Your task to perform on an android device: Set an alarm for 8pm Image 0: 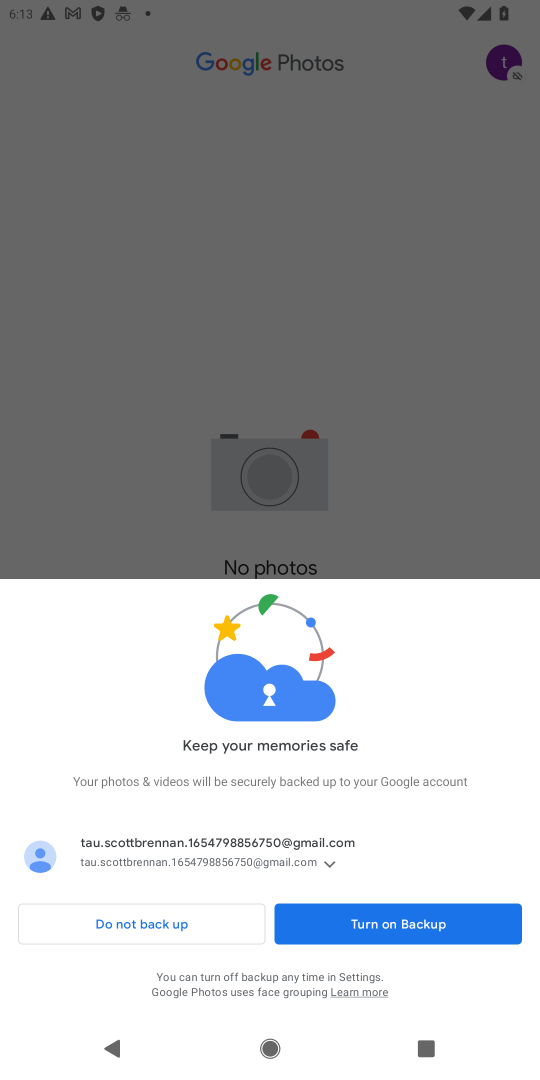
Step 0: press home button
Your task to perform on an android device: Set an alarm for 8pm Image 1: 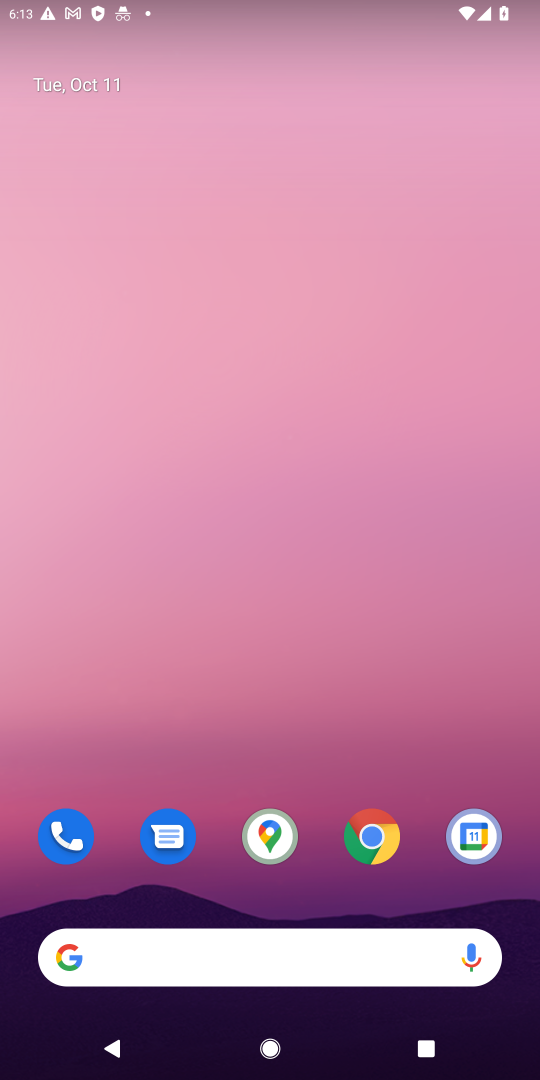
Step 1: drag from (424, 896) to (392, 116)
Your task to perform on an android device: Set an alarm for 8pm Image 2: 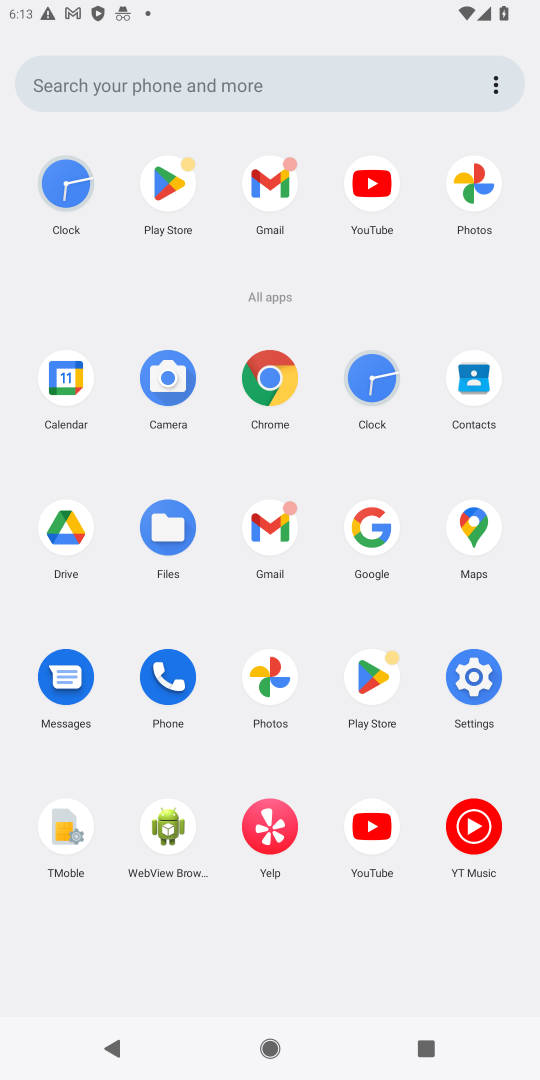
Step 2: click (370, 377)
Your task to perform on an android device: Set an alarm for 8pm Image 3: 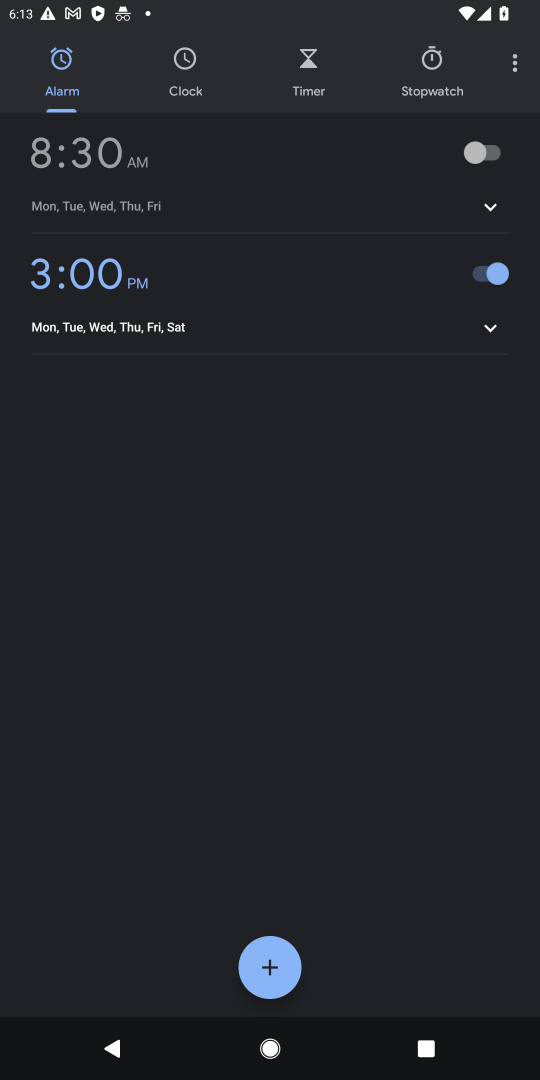
Step 3: click (68, 167)
Your task to perform on an android device: Set an alarm for 8pm Image 4: 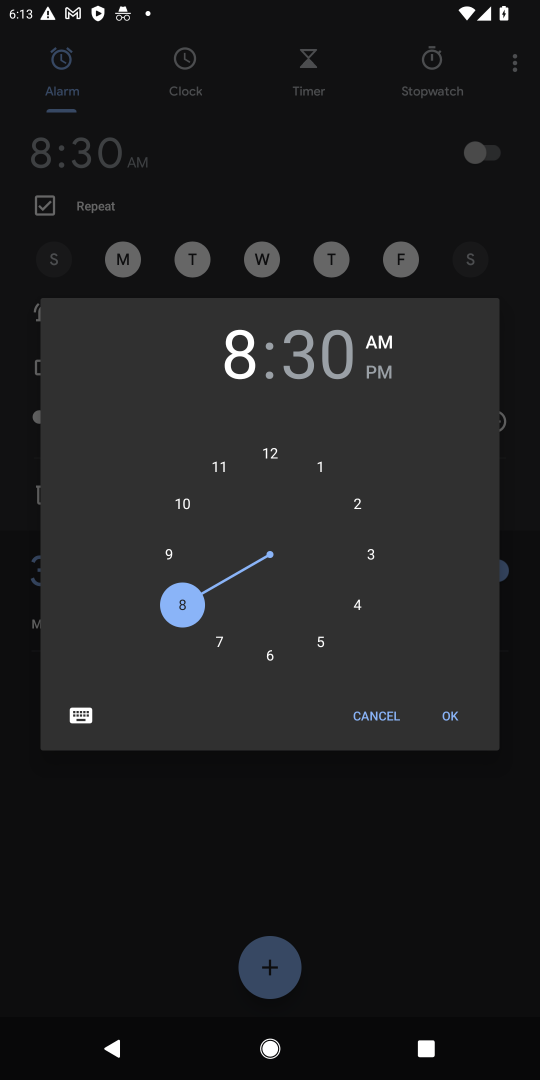
Step 4: click (183, 601)
Your task to perform on an android device: Set an alarm for 8pm Image 5: 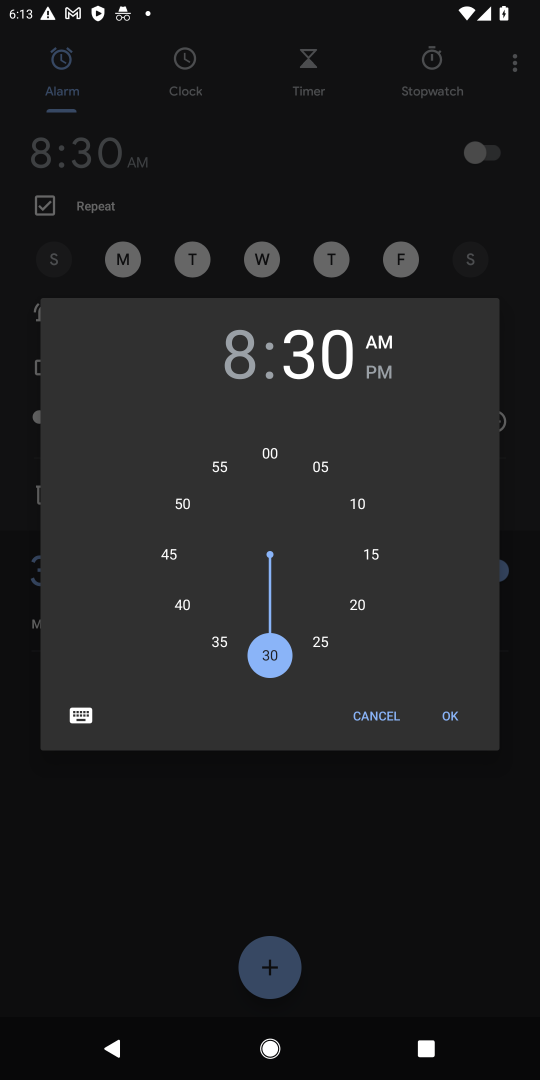
Step 5: click (272, 453)
Your task to perform on an android device: Set an alarm for 8pm Image 6: 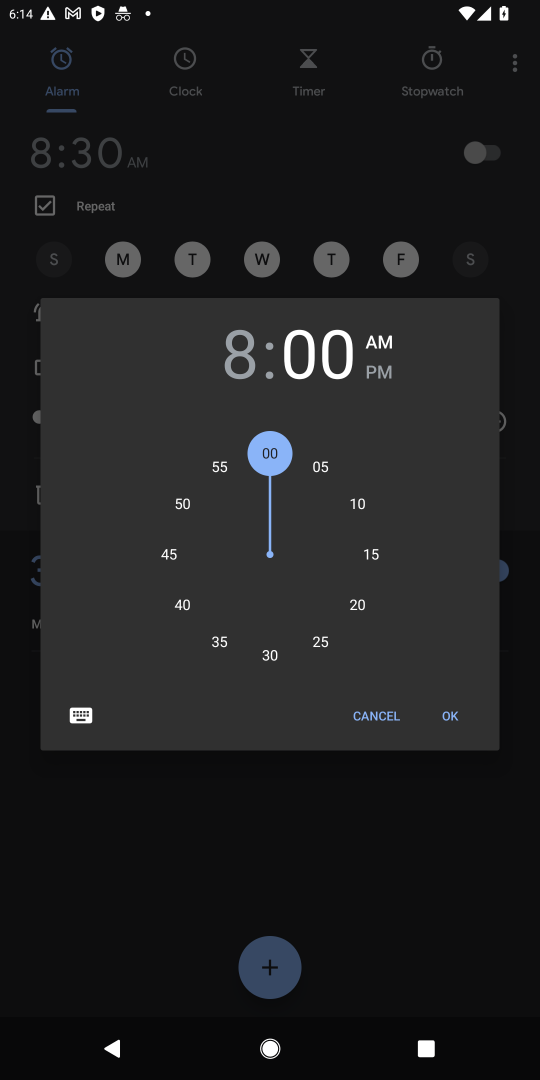
Step 6: click (380, 372)
Your task to perform on an android device: Set an alarm for 8pm Image 7: 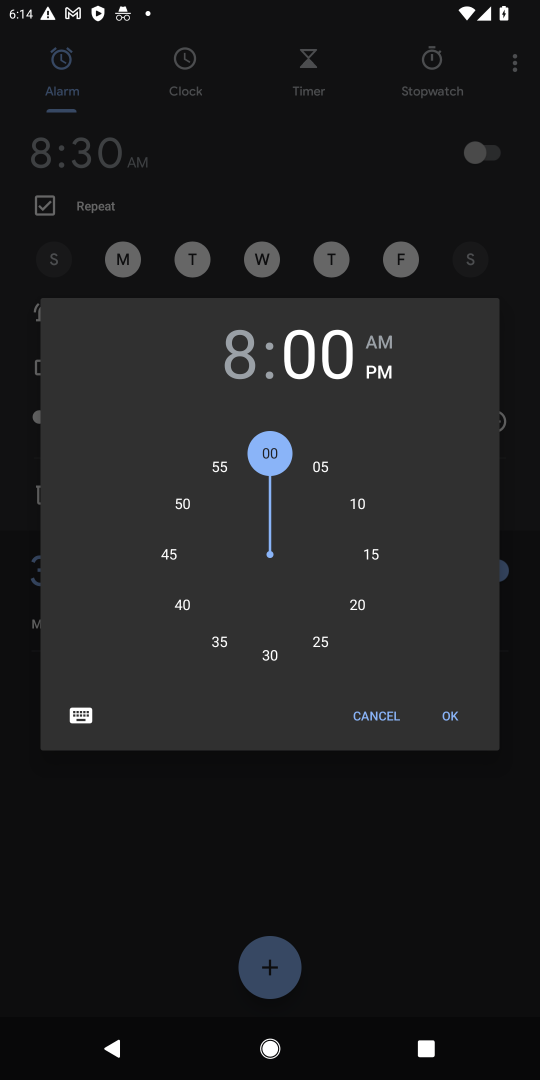
Step 7: click (455, 714)
Your task to perform on an android device: Set an alarm for 8pm Image 8: 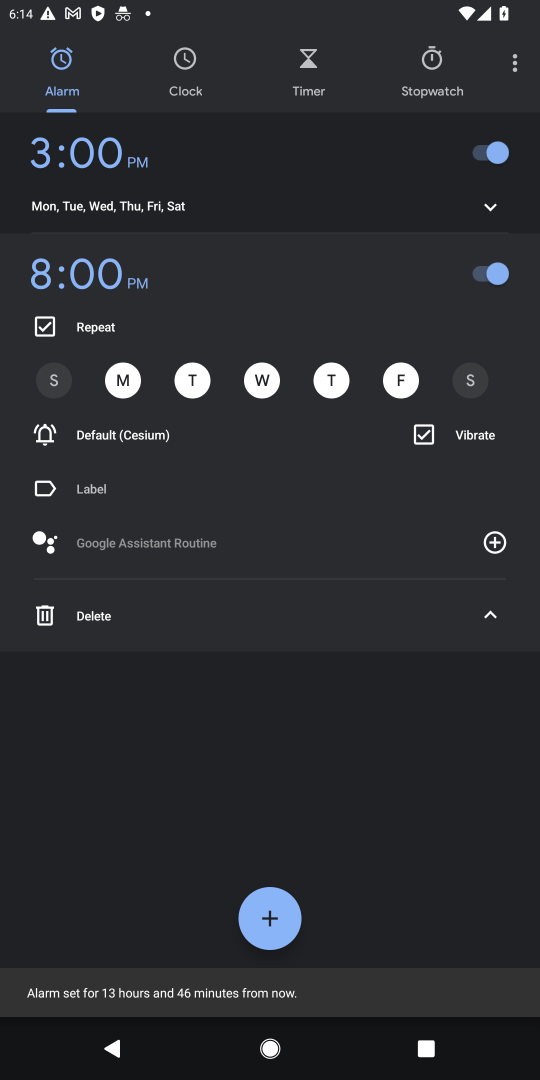
Step 8: click (464, 379)
Your task to perform on an android device: Set an alarm for 8pm Image 9: 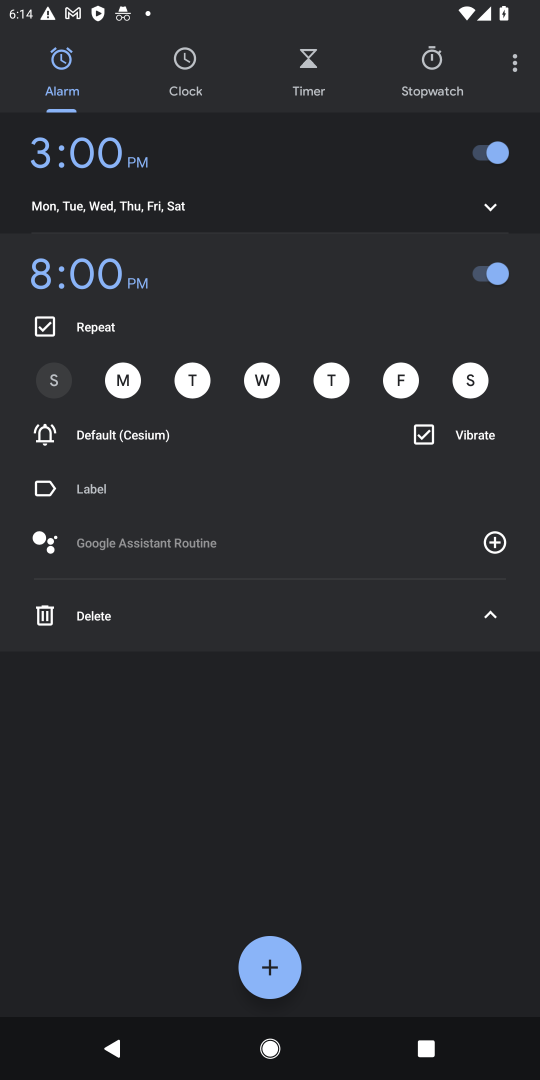
Step 9: click (489, 610)
Your task to perform on an android device: Set an alarm for 8pm Image 10: 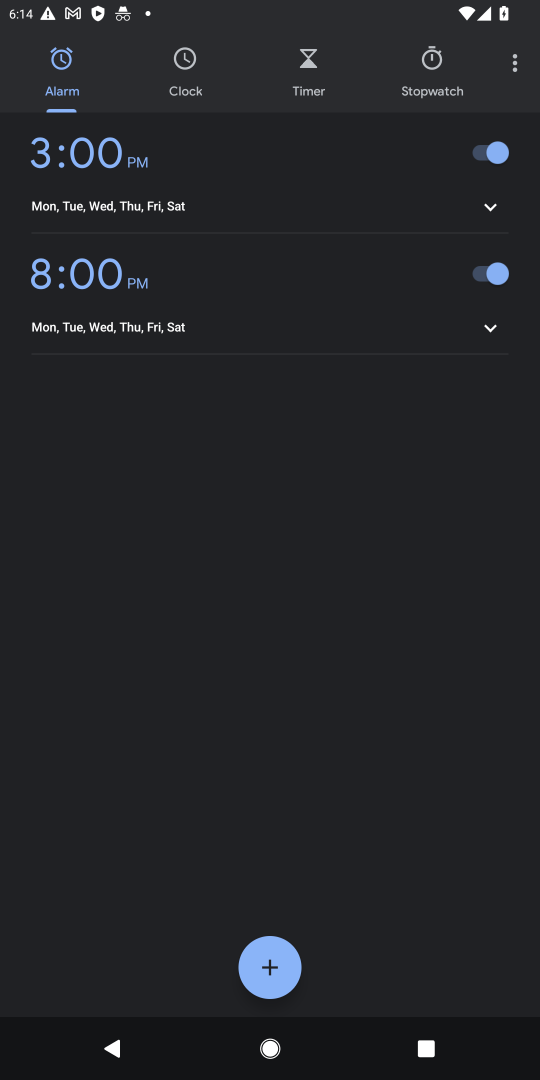
Step 10: task complete